Your task to perform on an android device: Open calendar and show me the third week of next month Image 0: 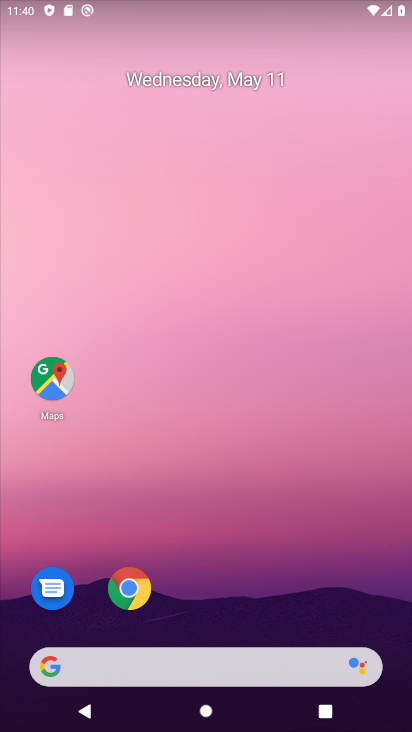
Step 0: drag from (201, 653) to (294, 157)
Your task to perform on an android device: Open calendar and show me the third week of next month Image 1: 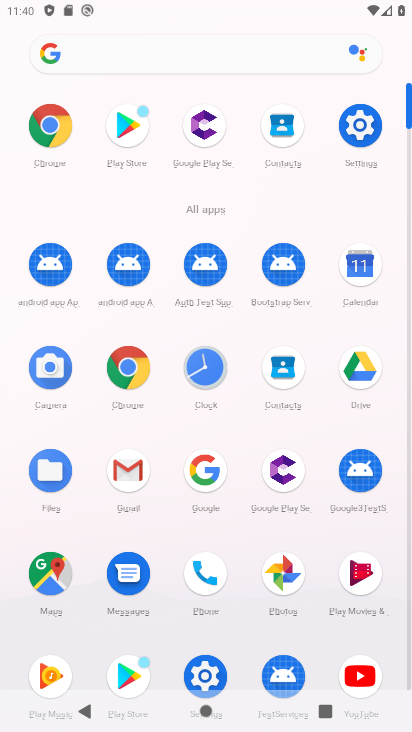
Step 1: click (363, 268)
Your task to perform on an android device: Open calendar and show me the third week of next month Image 2: 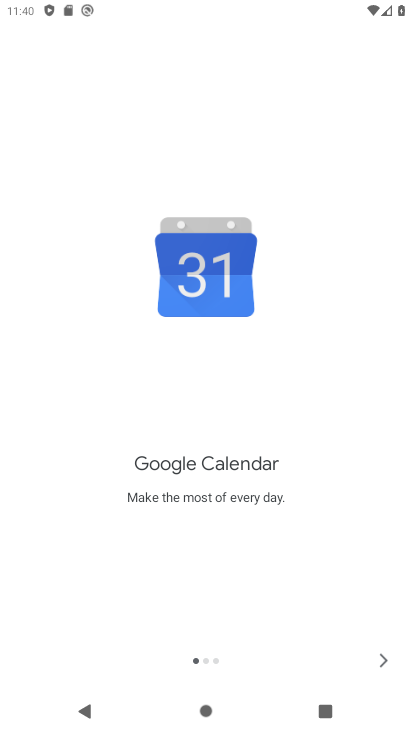
Step 2: click (380, 660)
Your task to perform on an android device: Open calendar and show me the third week of next month Image 3: 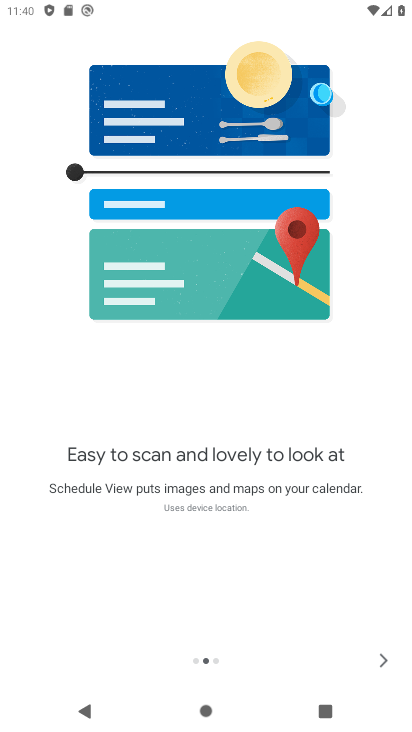
Step 3: click (380, 661)
Your task to perform on an android device: Open calendar and show me the third week of next month Image 4: 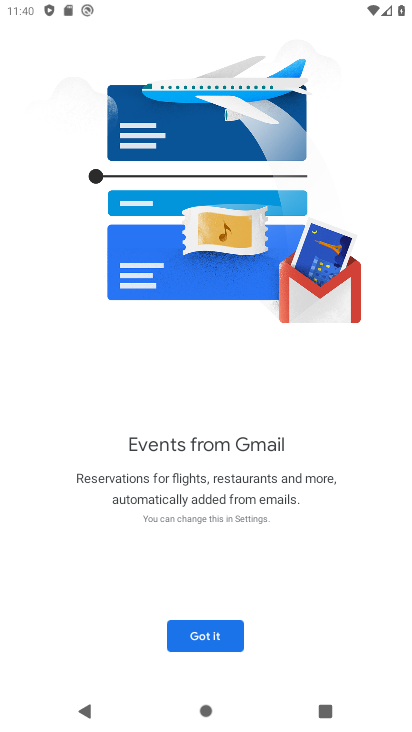
Step 4: click (200, 633)
Your task to perform on an android device: Open calendar and show me the third week of next month Image 5: 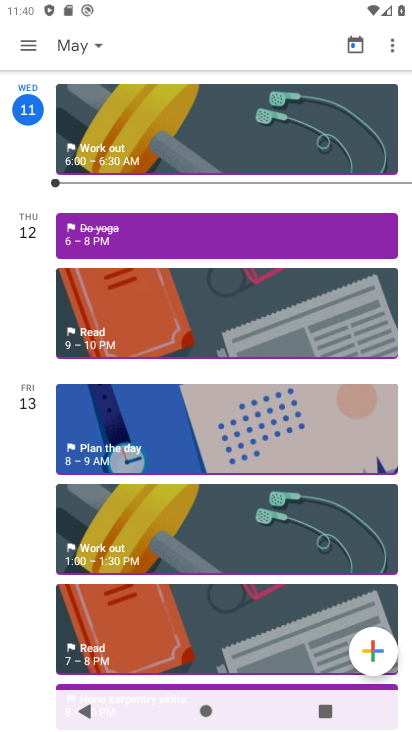
Step 5: click (75, 47)
Your task to perform on an android device: Open calendar and show me the third week of next month Image 6: 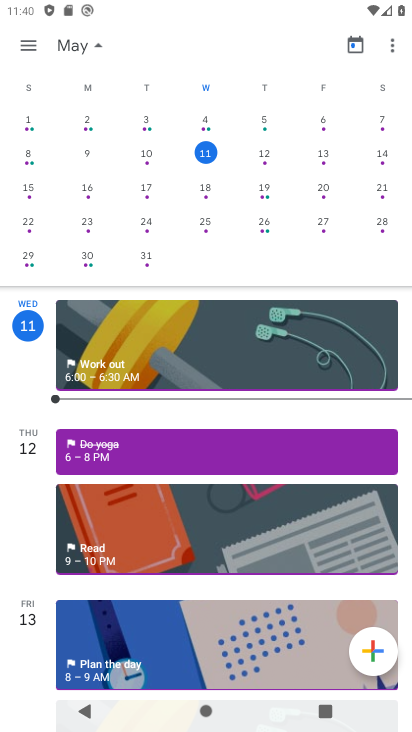
Step 6: drag from (385, 234) to (11, 246)
Your task to perform on an android device: Open calendar and show me the third week of next month Image 7: 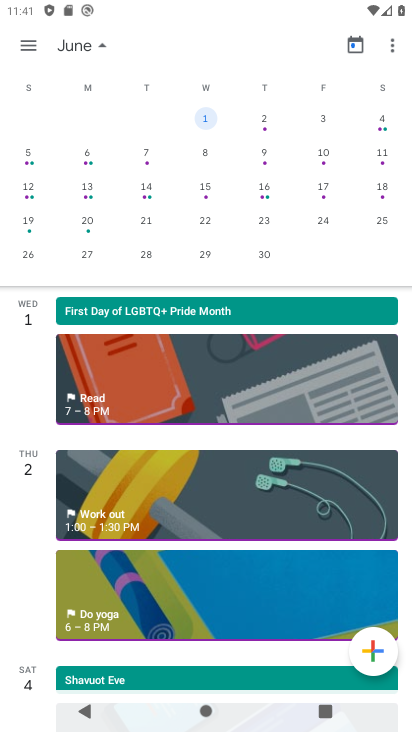
Step 7: click (33, 191)
Your task to perform on an android device: Open calendar and show me the third week of next month Image 8: 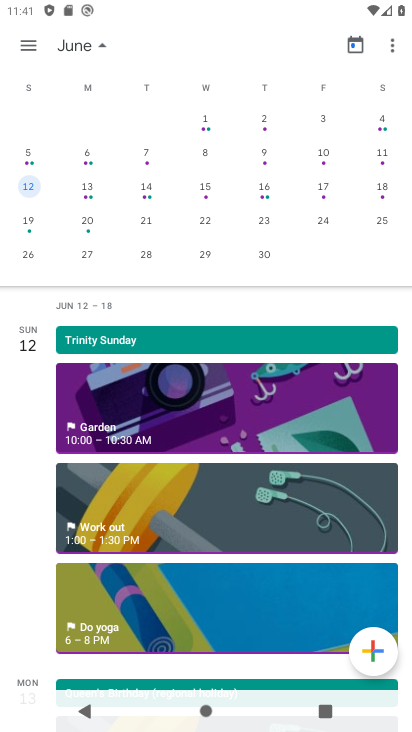
Step 8: task complete